Your task to perform on an android device: delete location history Image 0: 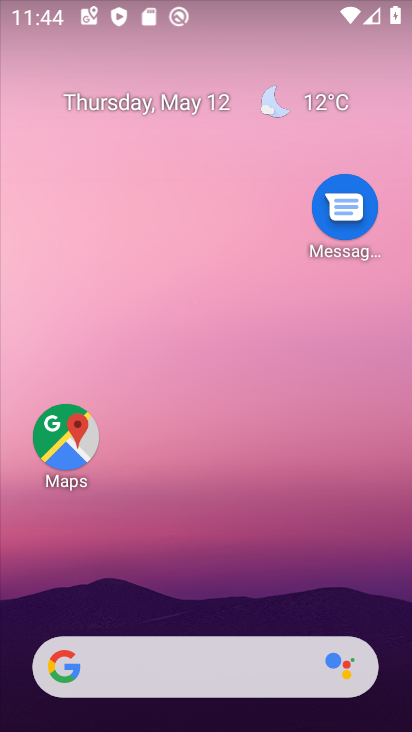
Step 0: press home button
Your task to perform on an android device: delete location history Image 1: 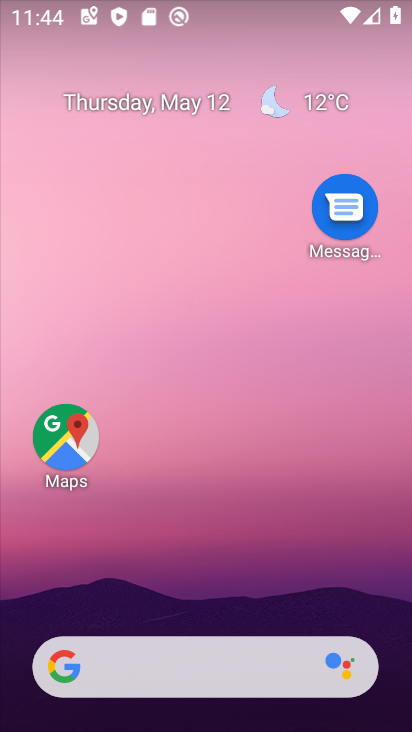
Step 1: drag from (289, 545) to (272, 79)
Your task to perform on an android device: delete location history Image 2: 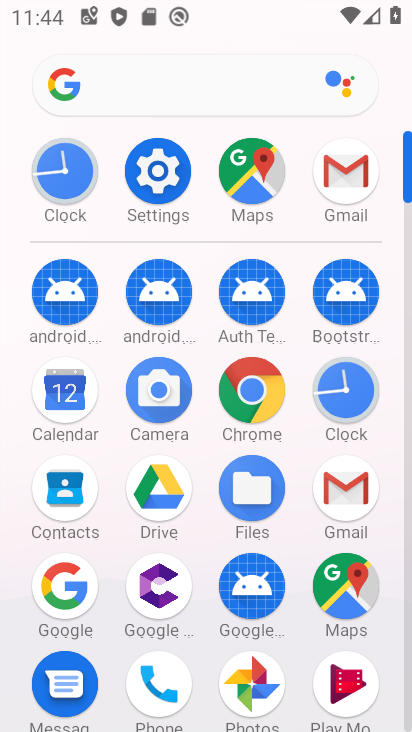
Step 2: click (251, 187)
Your task to perform on an android device: delete location history Image 3: 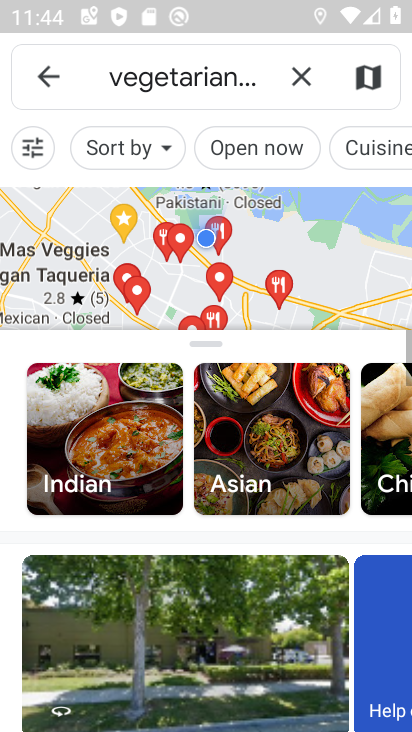
Step 3: click (53, 69)
Your task to perform on an android device: delete location history Image 4: 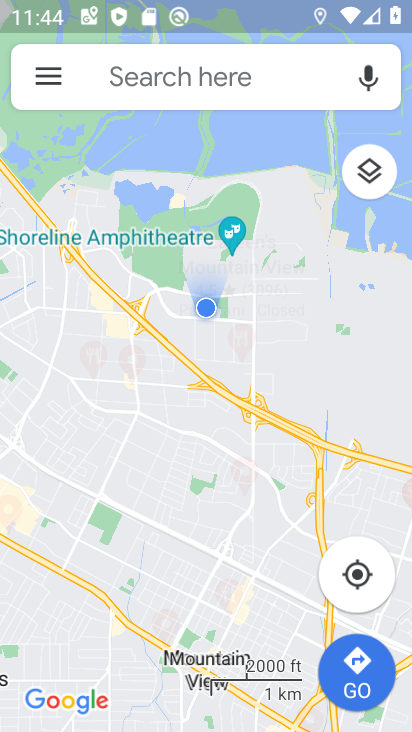
Step 4: click (53, 69)
Your task to perform on an android device: delete location history Image 5: 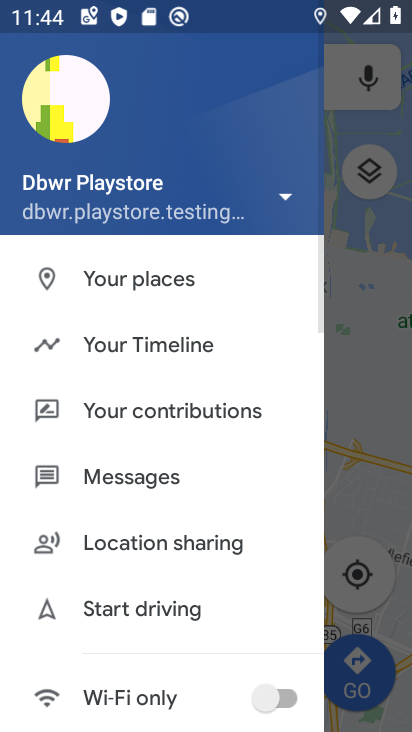
Step 5: click (176, 348)
Your task to perform on an android device: delete location history Image 6: 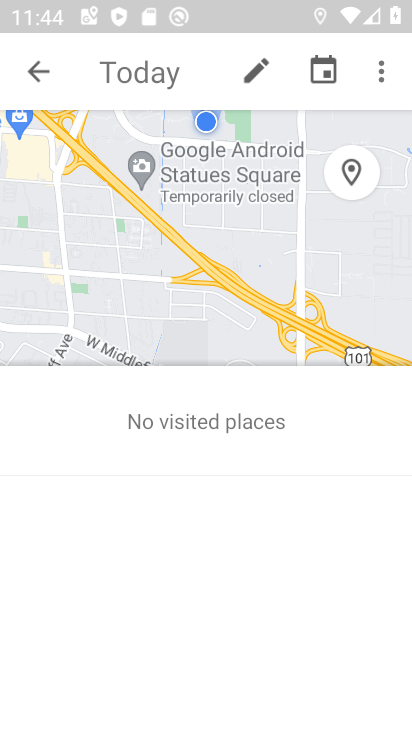
Step 6: click (368, 66)
Your task to perform on an android device: delete location history Image 7: 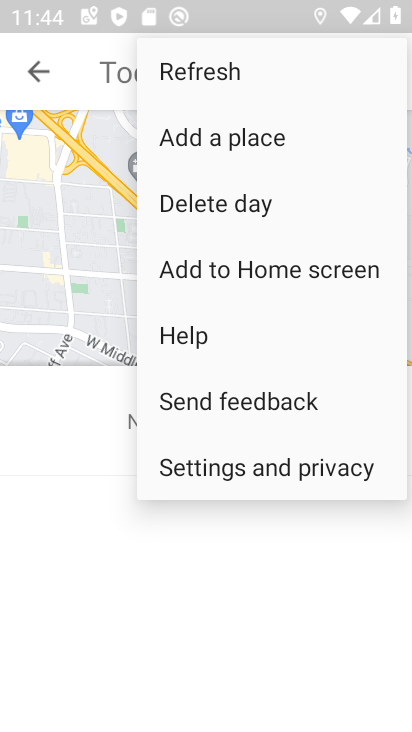
Step 7: click (210, 458)
Your task to perform on an android device: delete location history Image 8: 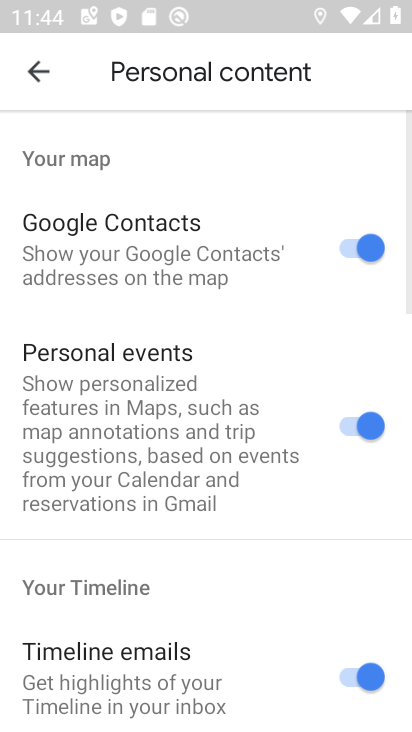
Step 8: drag from (181, 640) to (210, 242)
Your task to perform on an android device: delete location history Image 9: 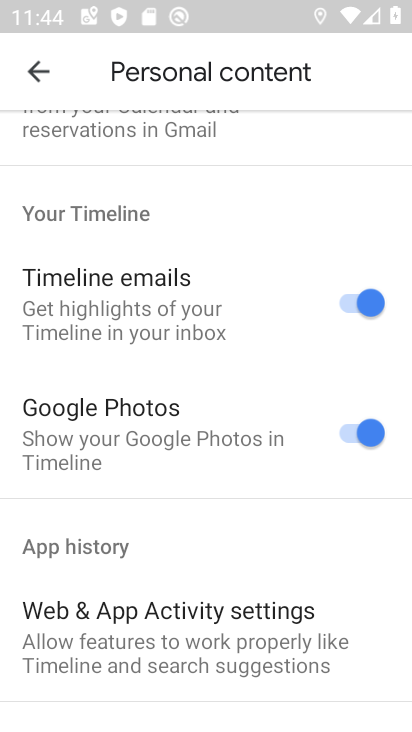
Step 9: drag from (177, 605) to (111, 285)
Your task to perform on an android device: delete location history Image 10: 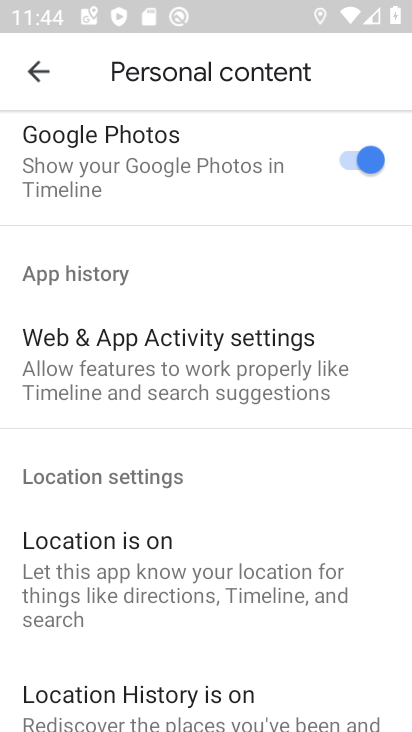
Step 10: drag from (139, 567) to (215, 144)
Your task to perform on an android device: delete location history Image 11: 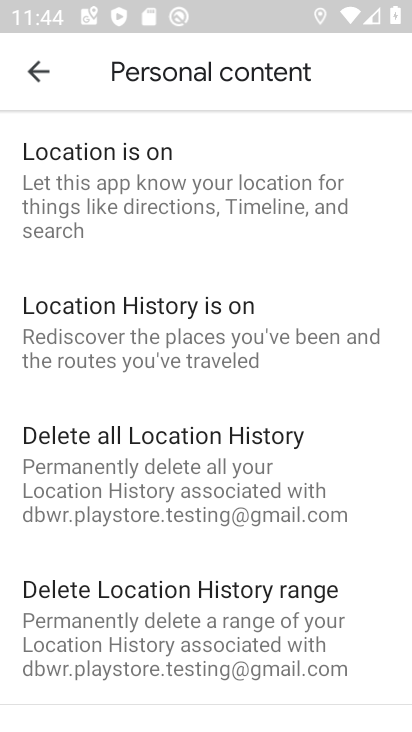
Step 11: click (166, 648)
Your task to perform on an android device: delete location history Image 12: 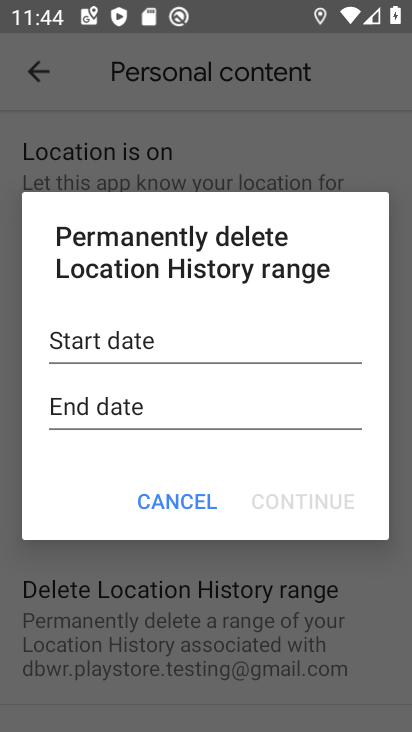
Step 12: click (192, 500)
Your task to perform on an android device: delete location history Image 13: 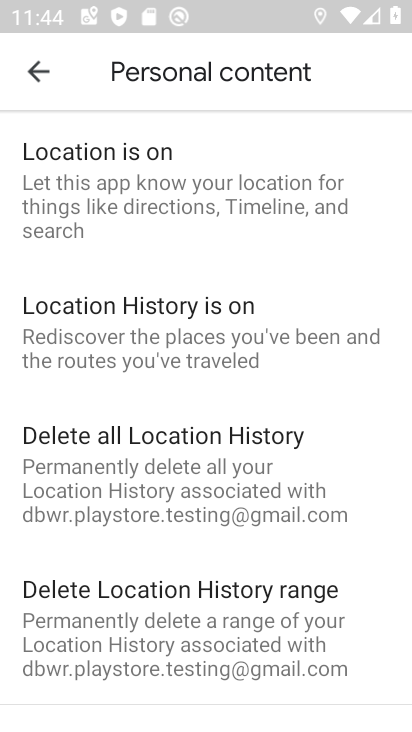
Step 13: click (180, 484)
Your task to perform on an android device: delete location history Image 14: 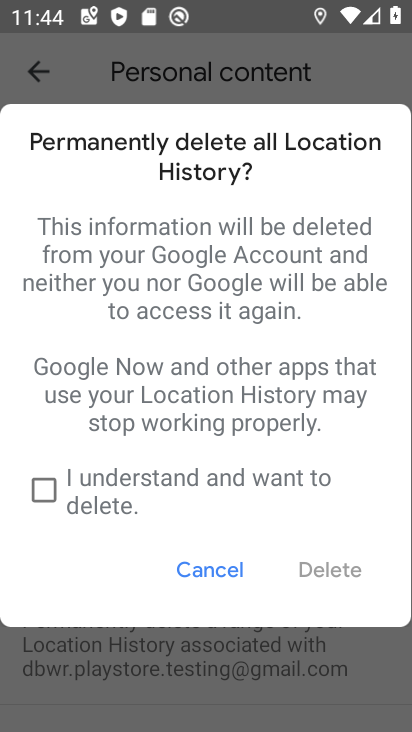
Step 14: click (186, 484)
Your task to perform on an android device: delete location history Image 15: 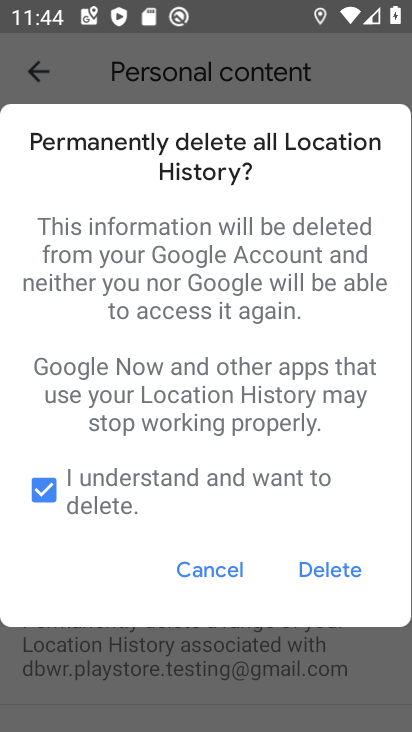
Step 15: click (312, 571)
Your task to perform on an android device: delete location history Image 16: 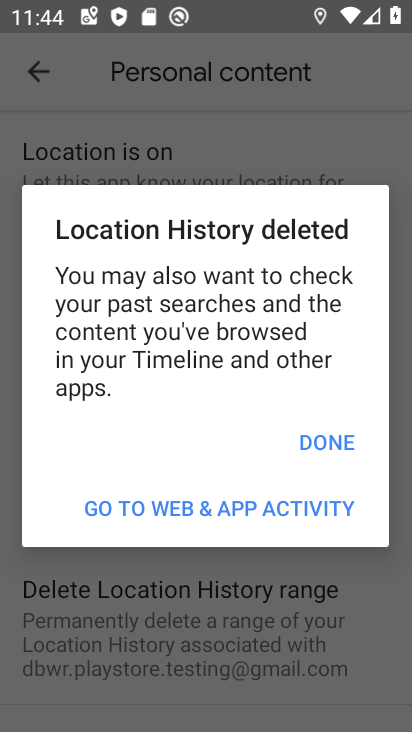
Step 16: click (312, 445)
Your task to perform on an android device: delete location history Image 17: 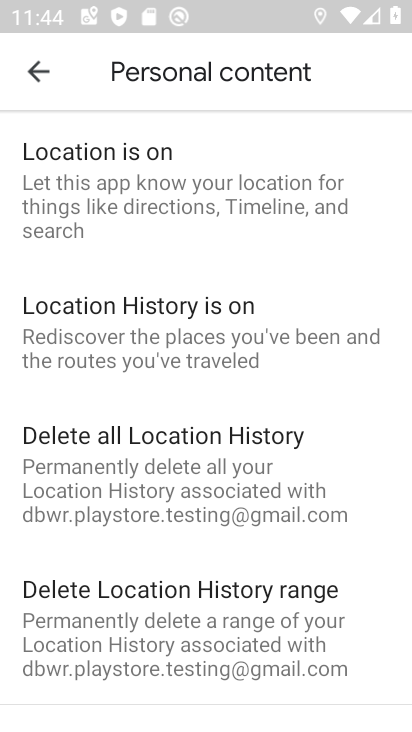
Step 17: task complete